Your task to perform on an android device: Search for Mexican restaurants on Maps Image 0: 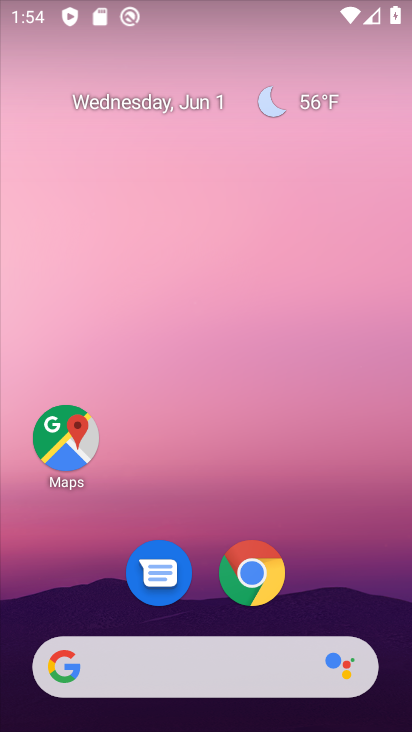
Step 0: drag from (347, 567) to (215, 2)
Your task to perform on an android device: Search for Mexican restaurants on Maps Image 1: 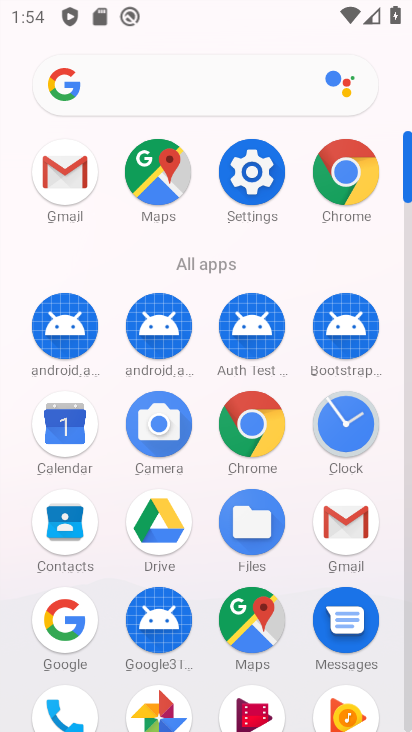
Step 1: click (183, 178)
Your task to perform on an android device: Search for Mexican restaurants on Maps Image 2: 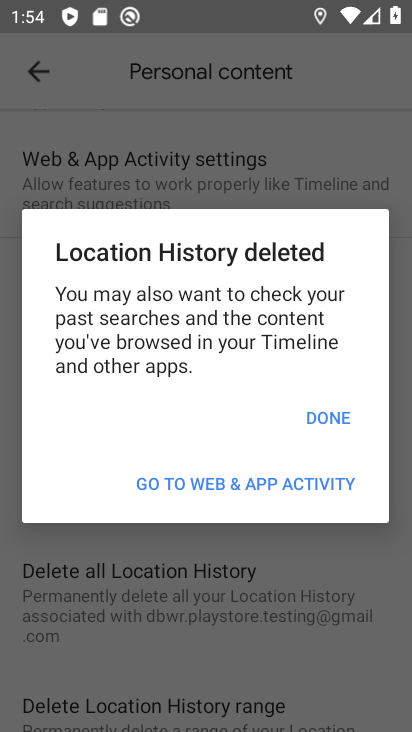
Step 2: press back button
Your task to perform on an android device: Search for Mexican restaurants on Maps Image 3: 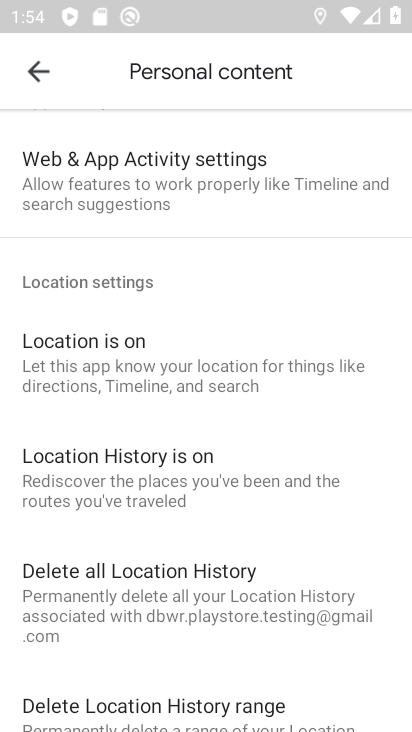
Step 3: click (42, 67)
Your task to perform on an android device: Search for Mexican restaurants on Maps Image 4: 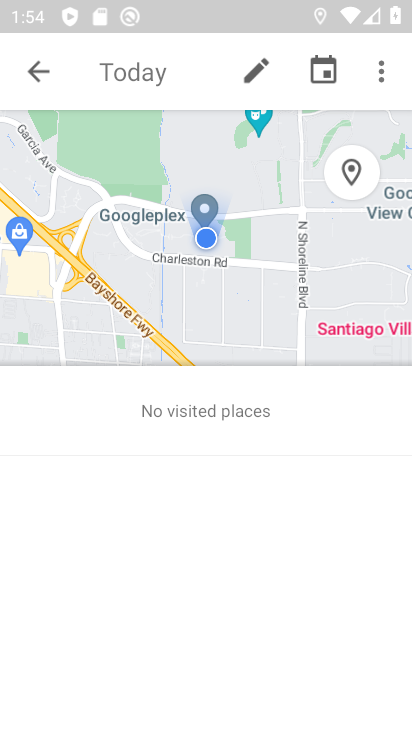
Step 4: click (50, 63)
Your task to perform on an android device: Search for Mexican restaurants on Maps Image 5: 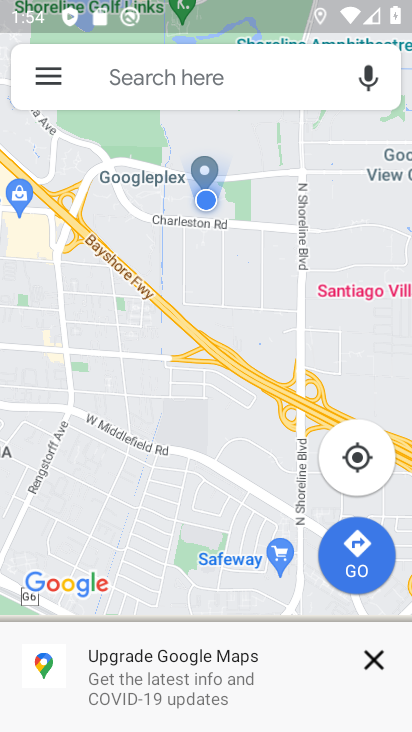
Step 5: click (129, 75)
Your task to perform on an android device: Search for Mexican restaurants on Maps Image 6: 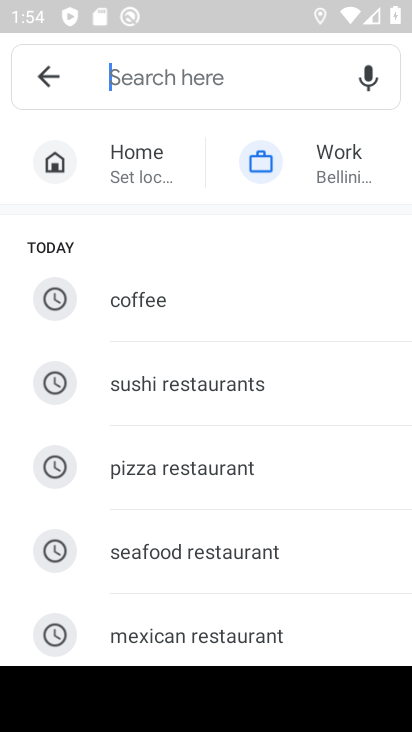
Step 6: click (248, 647)
Your task to perform on an android device: Search for Mexican restaurants on Maps Image 7: 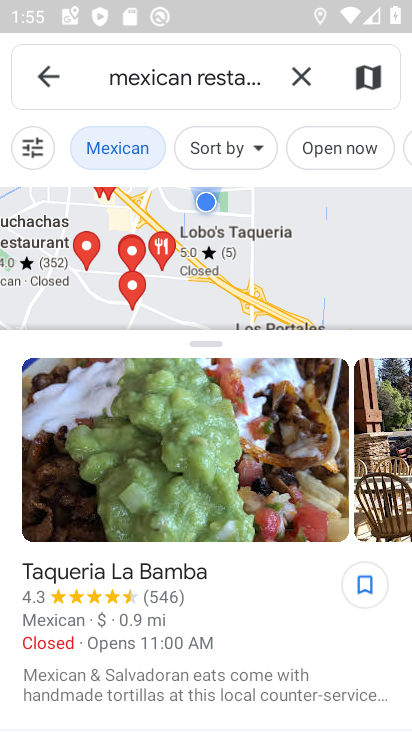
Step 7: task complete